Your task to perform on an android device: open app "Fetch Rewards" Image 0: 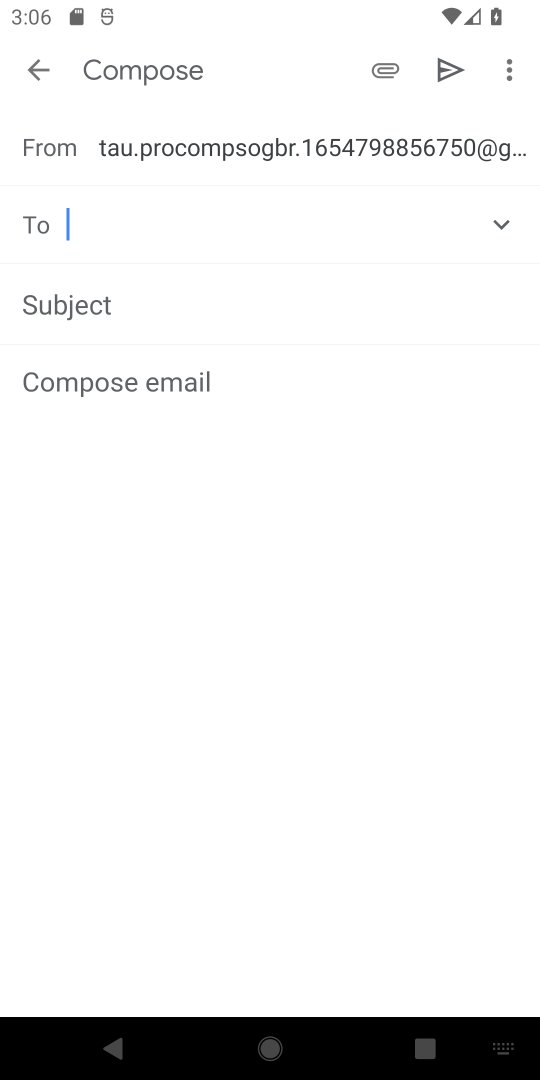
Step 0: press home button
Your task to perform on an android device: open app "Fetch Rewards" Image 1: 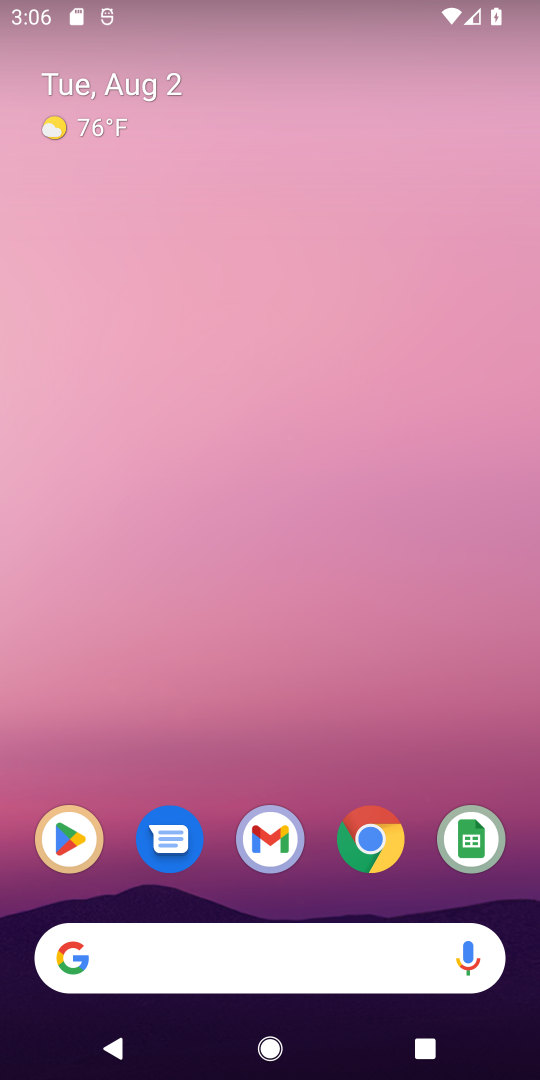
Step 1: drag from (223, 907) to (312, 278)
Your task to perform on an android device: open app "Fetch Rewards" Image 2: 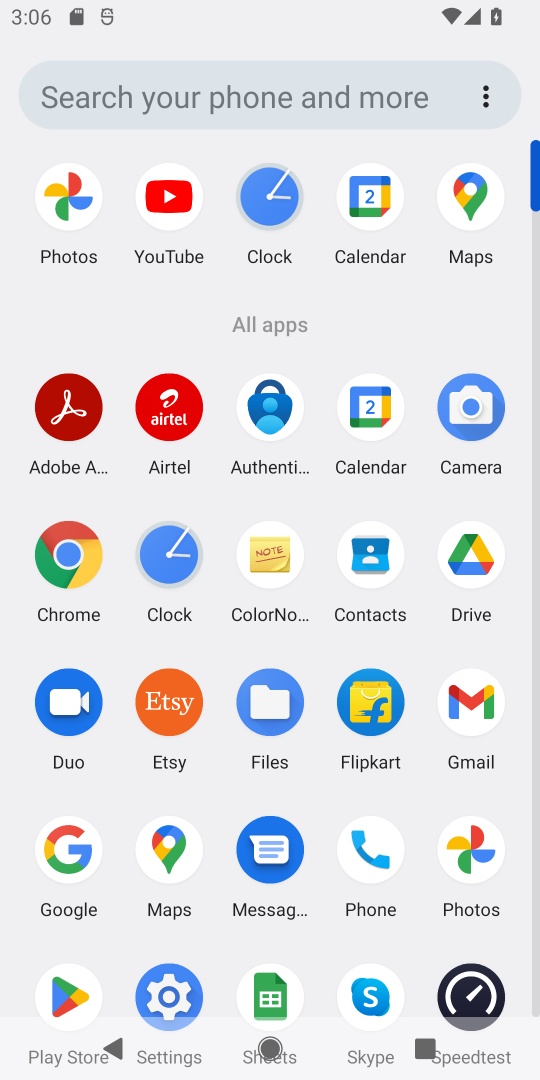
Step 2: click (60, 1005)
Your task to perform on an android device: open app "Fetch Rewards" Image 3: 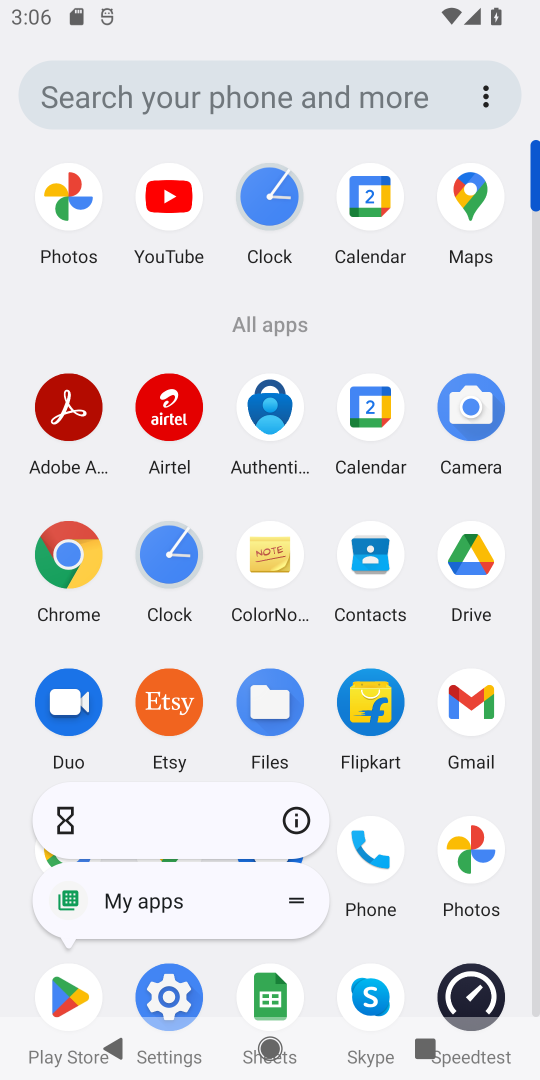
Step 3: click (60, 1005)
Your task to perform on an android device: open app "Fetch Rewards" Image 4: 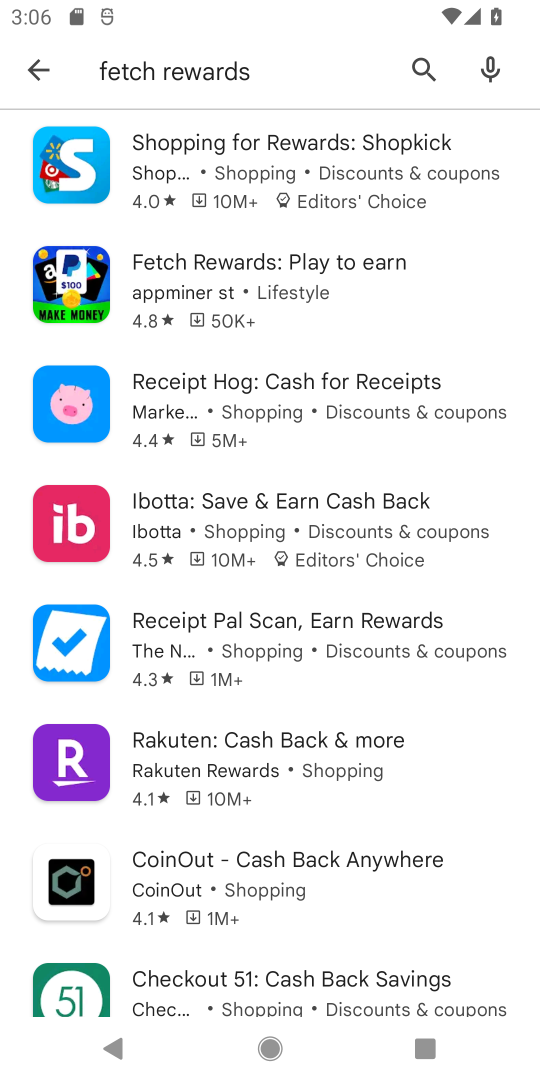
Step 4: click (419, 63)
Your task to perform on an android device: open app "Fetch Rewards" Image 5: 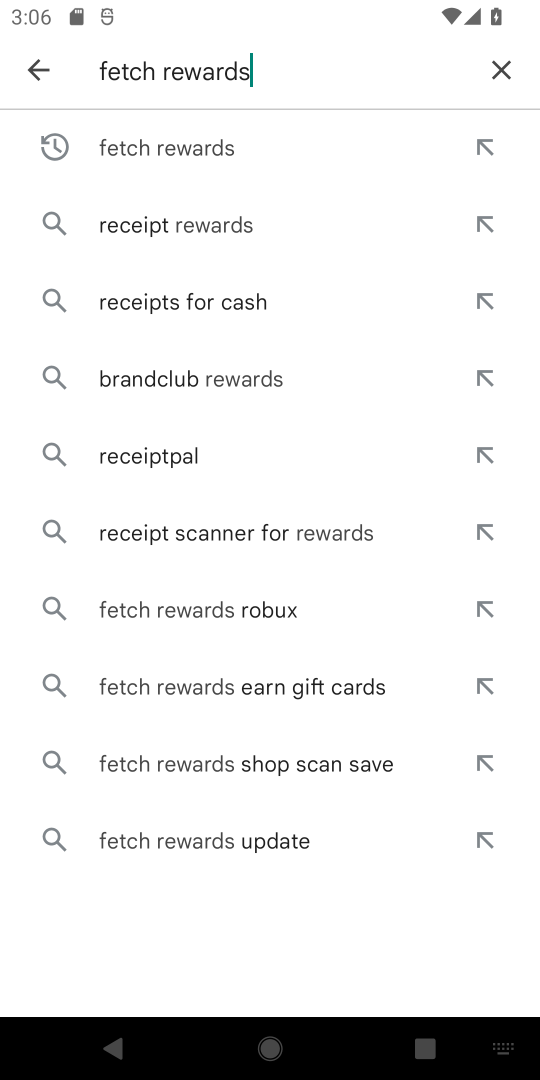
Step 5: click (498, 76)
Your task to perform on an android device: open app "Fetch Rewards" Image 6: 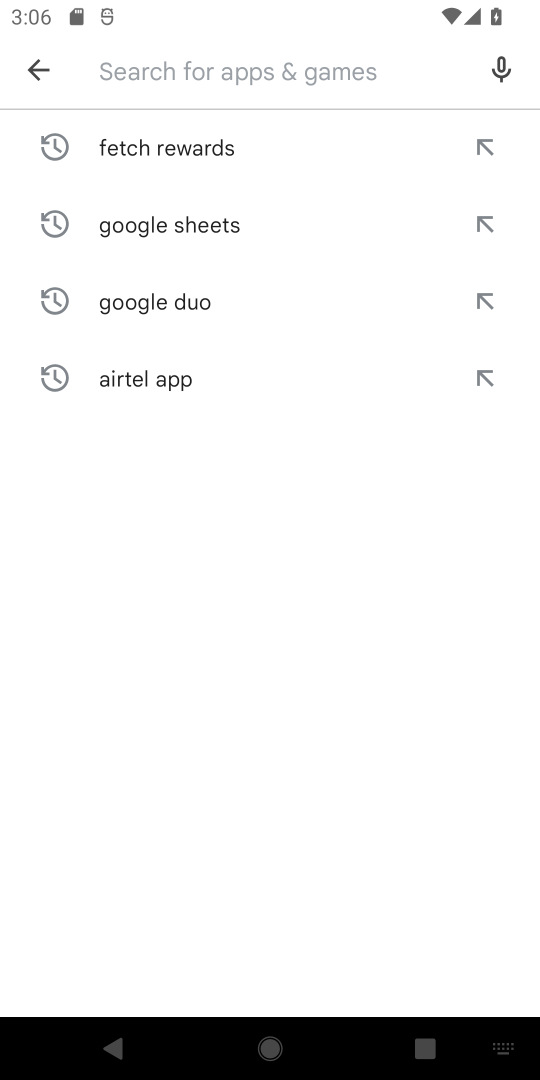
Step 6: click (236, 124)
Your task to perform on an android device: open app "Fetch Rewards" Image 7: 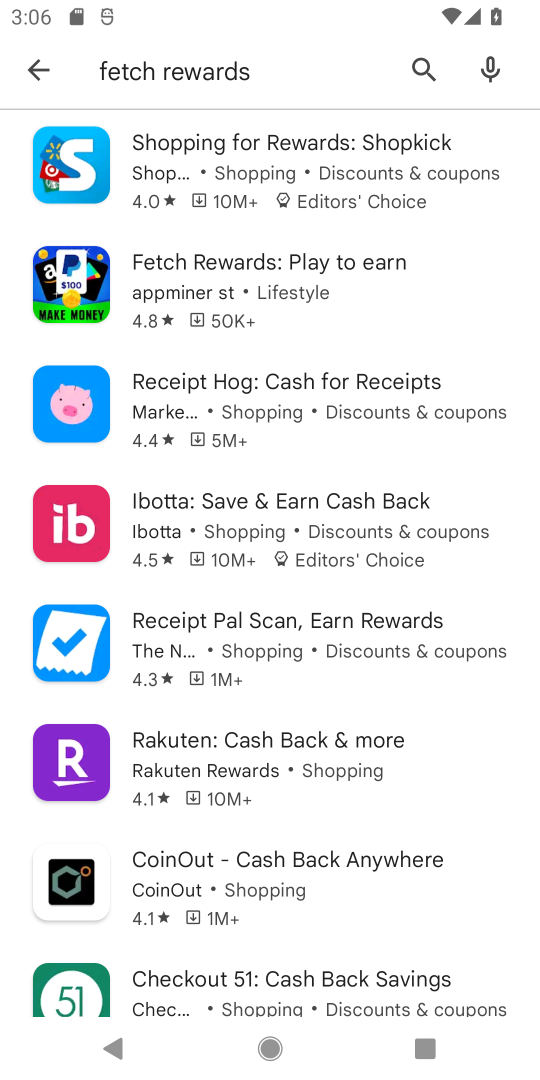
Step 7: click (280, 138)
Your task to perform on an android device: open app "Fetch Rewards" Image 8: 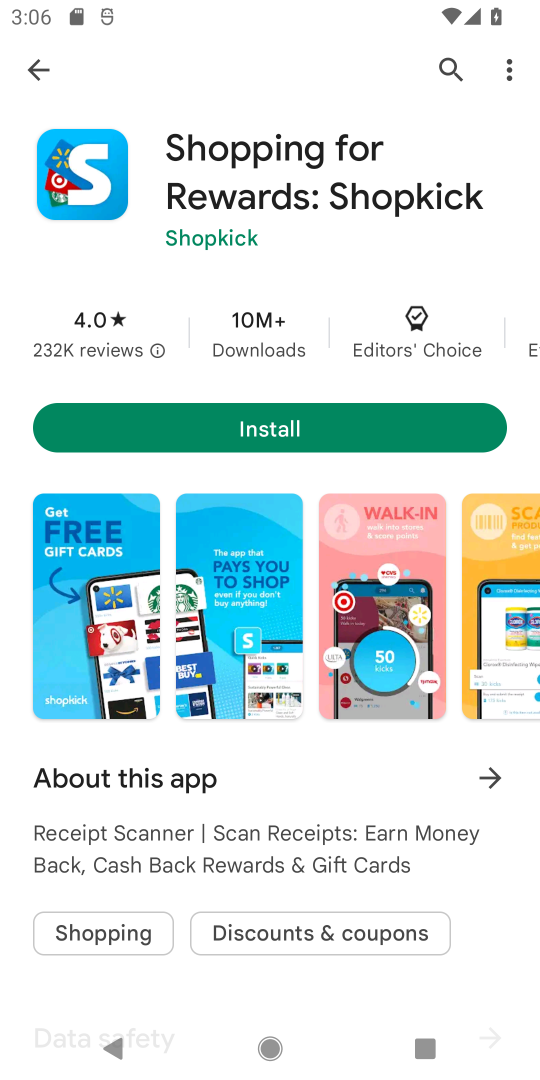
Step 8: click (298, 439)
Your task to perform on an android device: open app "Fetch Rewards" Image 9: 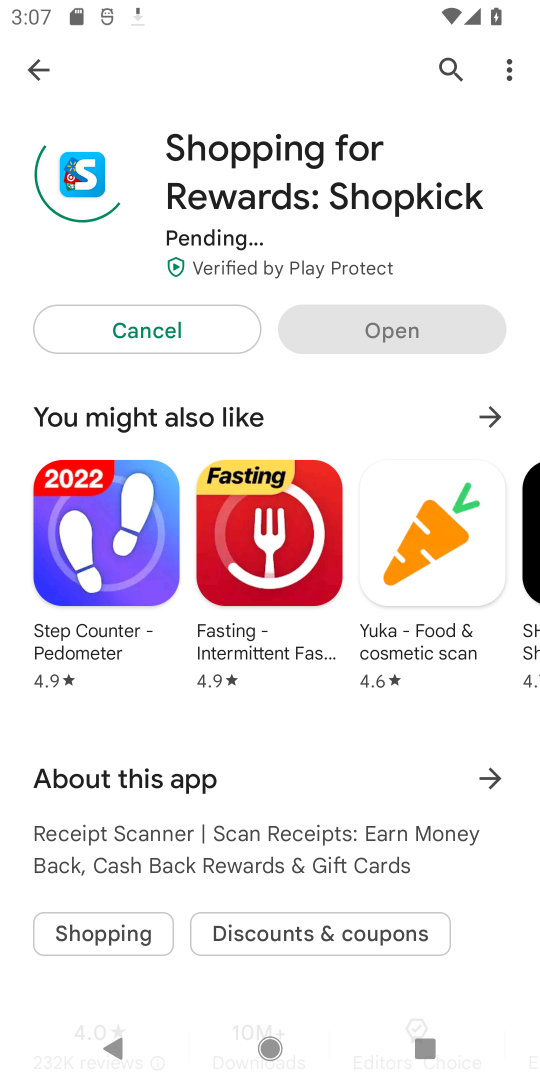
Step 9: task complete